Your task to perform on an android device: Search for the best value 4K TV on Best Buy Image 0: 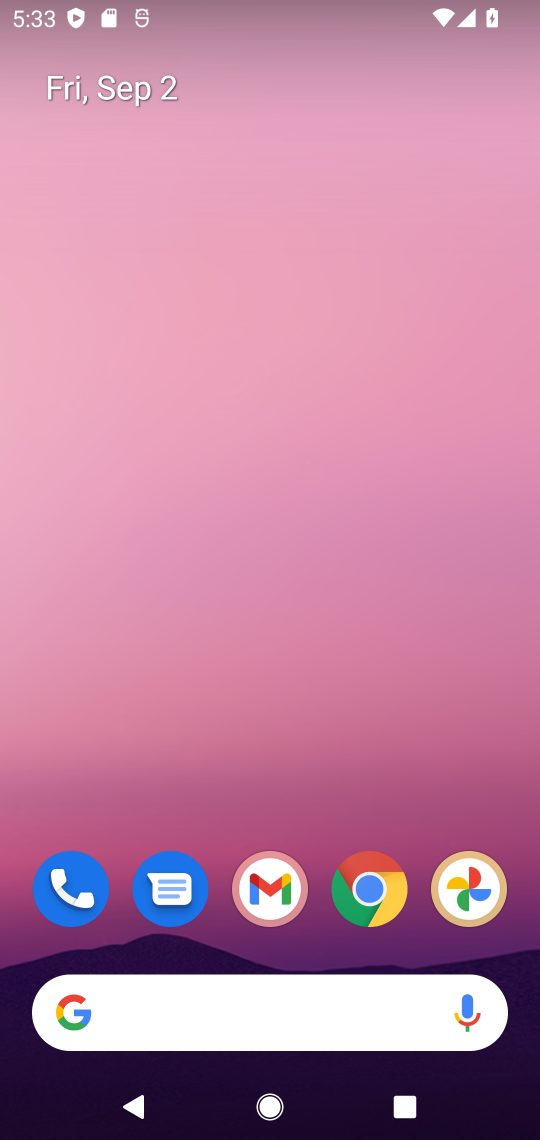
Step 0: click (228, 1022)
Your task to perform on an android device: Search for the best value 4K TV on Best Buy Image 1: 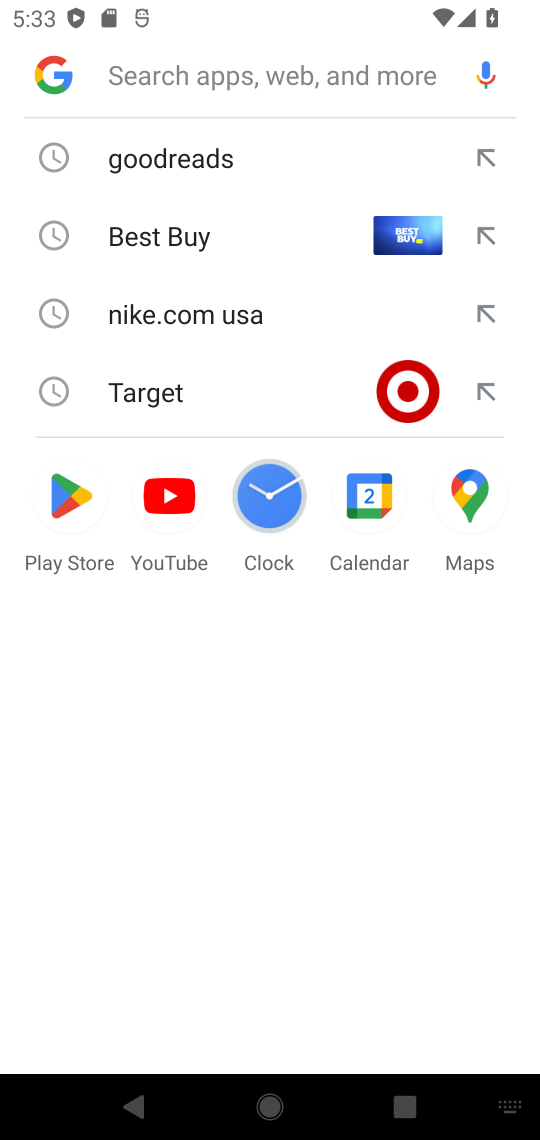
Step 1: click (223, 232)
Your task to perform on an android device: Search for the best value 4K TV on Best Buy Image 2: 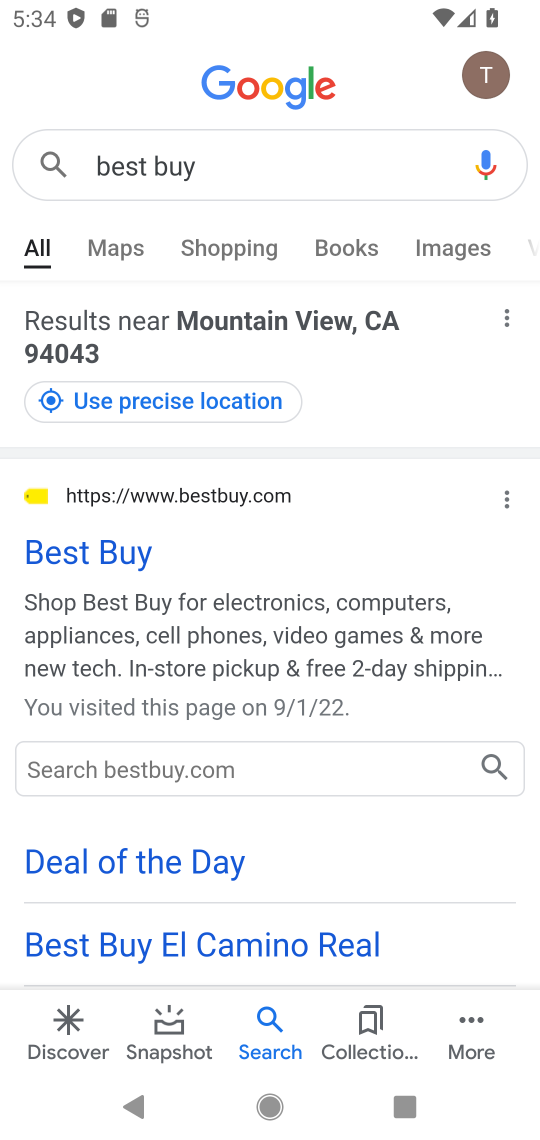
Step 2: click (86, 529)
Your task to perform on an android device: Search for the best value 4K TV on Best Buy Image 3: 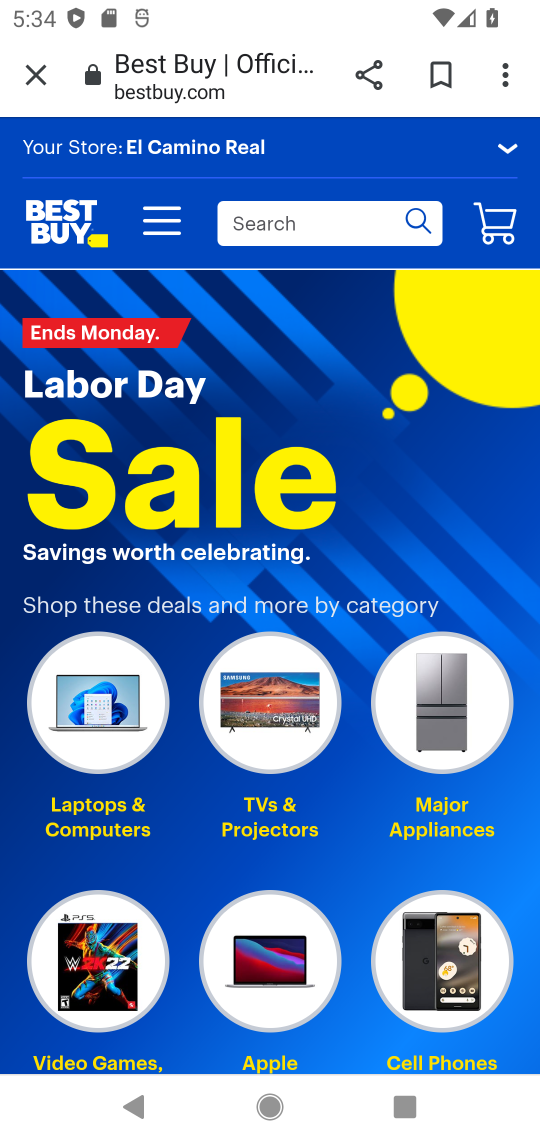
Step 3: click (273, 219)
Your task to perform on an android device: Search for the best value 4K TV on Best Buy Image 4: 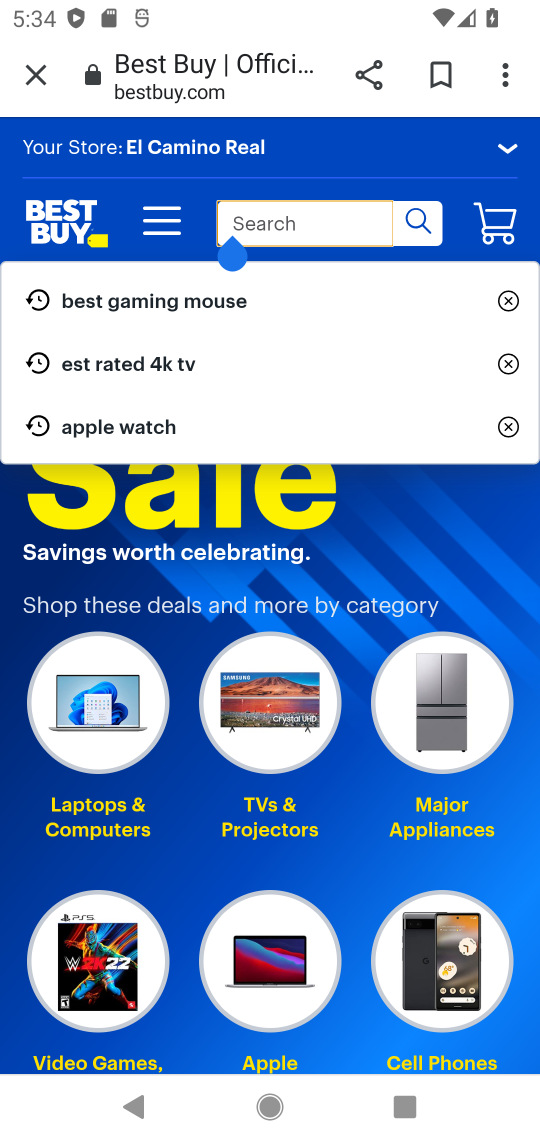
Step 4: type "best value 4K TV"
Your task to perform on an android device: Search for the best value 4K TV on Best Buy Image 5: 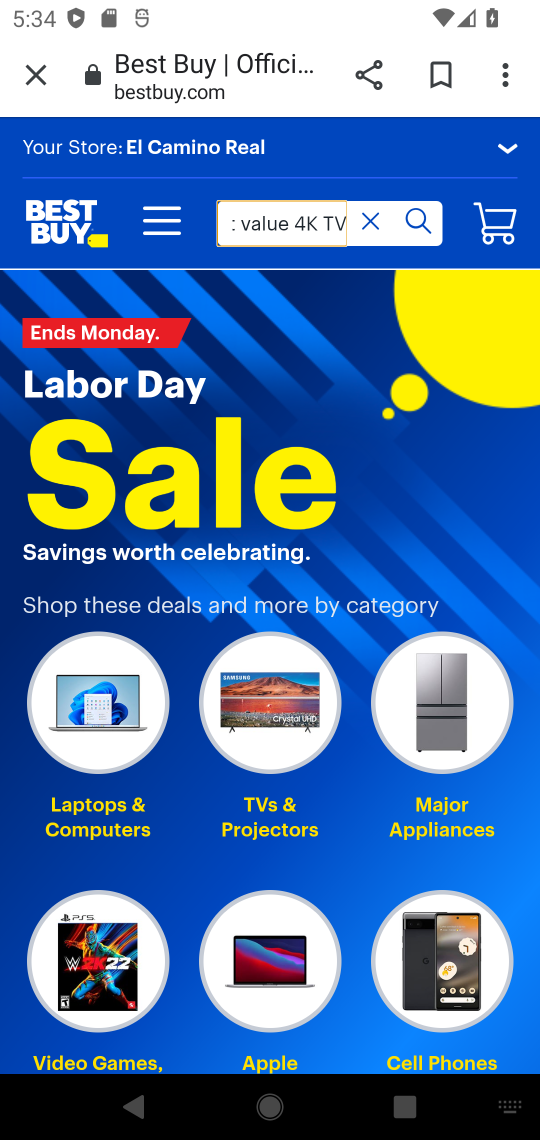
Step 5: click (416, 228)
Your task to perform on an android device: Search for the best value 4K TV on Best Buy Image 6: 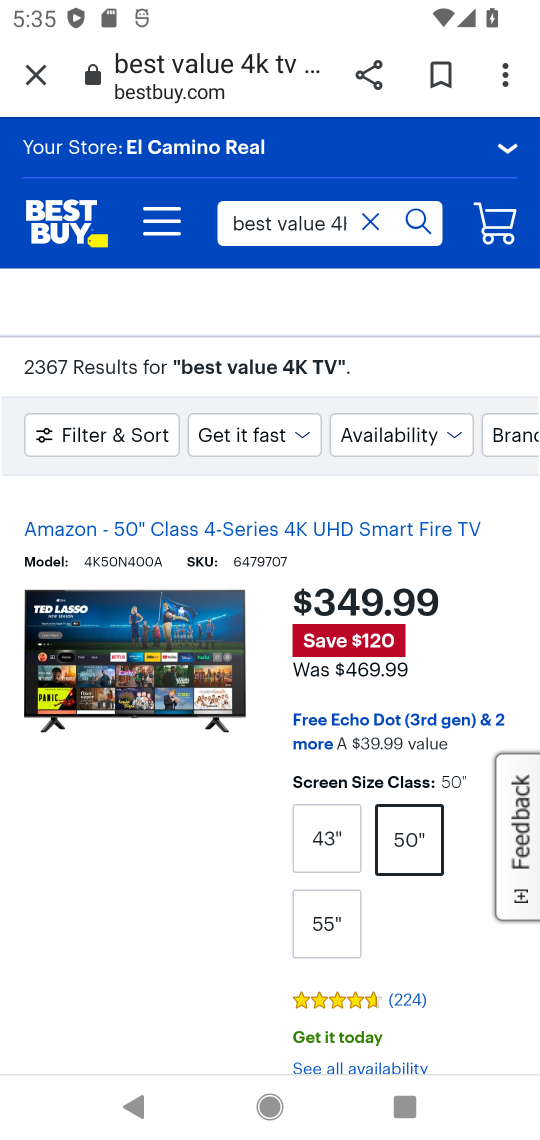
Step 6: task complete